Your task to perform on an android device: toggle javascript in the chrome app Image 0: 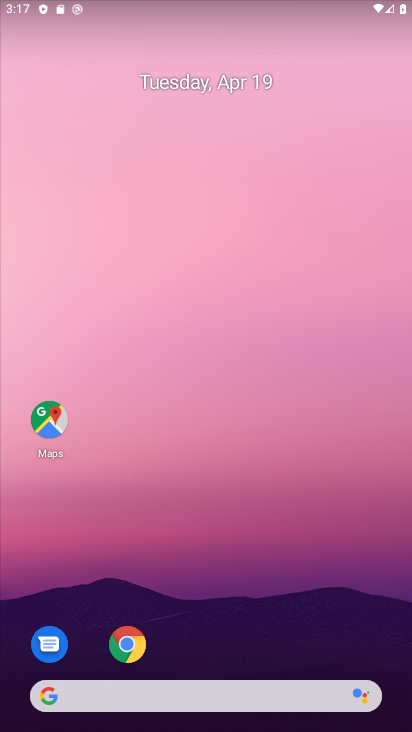
Step 0: click (128, 644)
Your task to perform on an android device: toggle javascript in the chrome app Image 1: 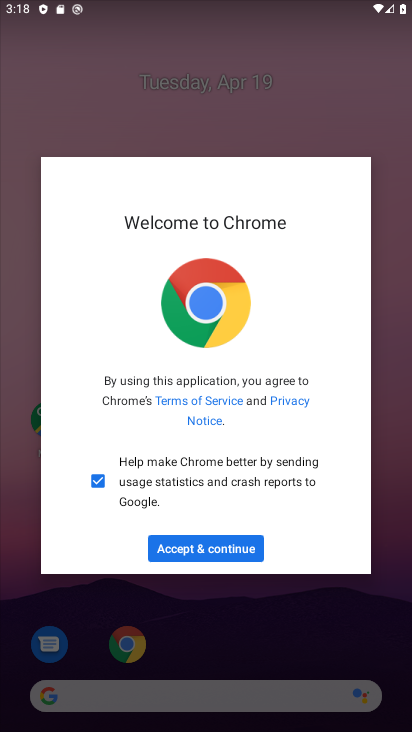
Step 1: click (207, 545)
Your task to perform on an android device: toggle javascript in the chrome app Image 2: 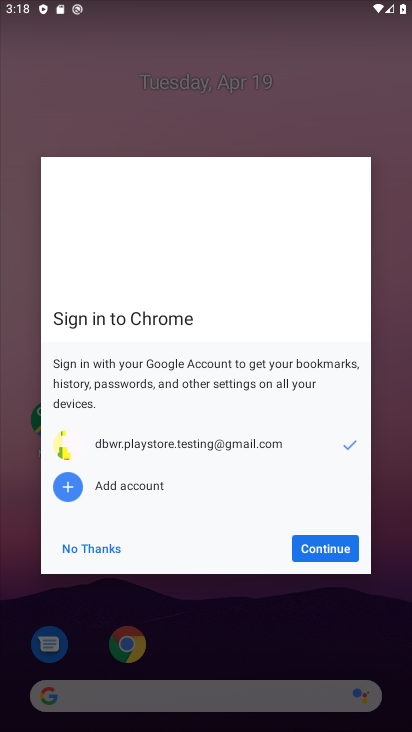
Step 2: click (308, 541)
Your task to perform on an android device: toggle javascript in the chrome app Image 3: 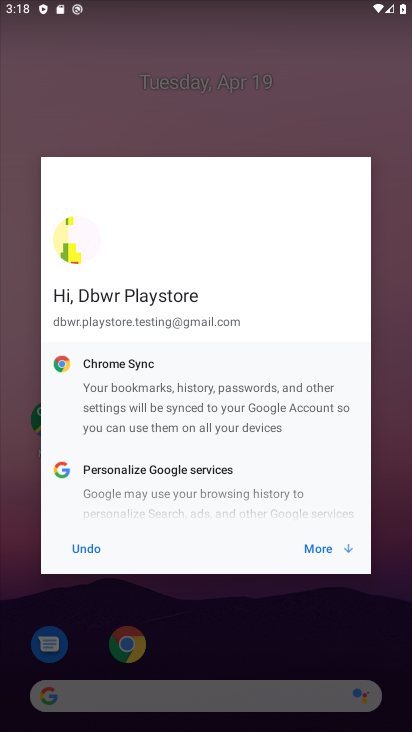
Step 3: click (315, 546)
Your task to perform on an android device: toggle javascript in the chrome app Image 4: 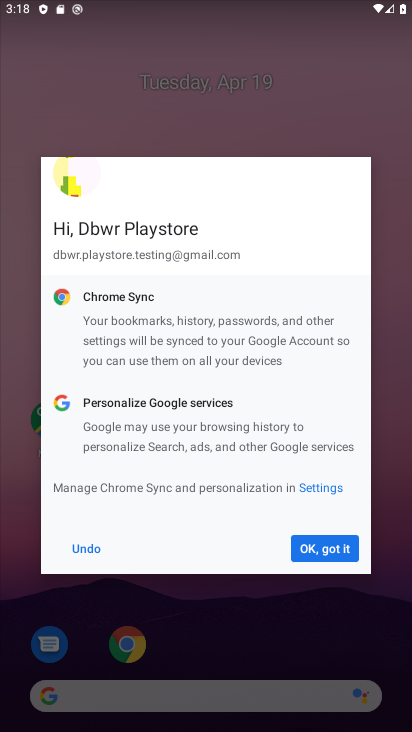
Step 4: click (315, 546)
Your task to perform on an android device: toggle javascript in the chrome app Image 5: 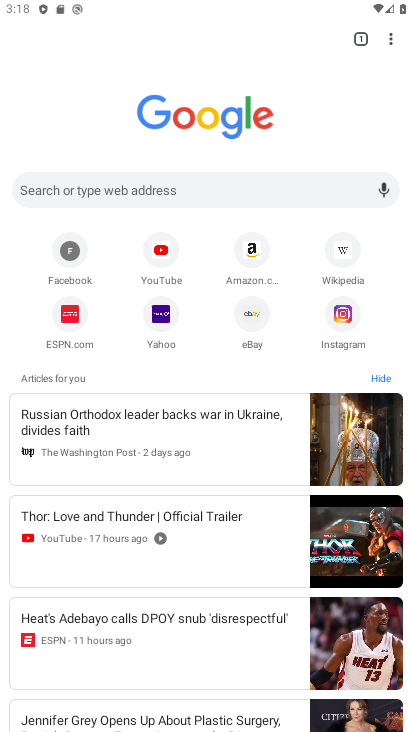
Step 5: click (388, 33)
Your task to perform on an android device: toggle javascript in the chrome app Image 6: 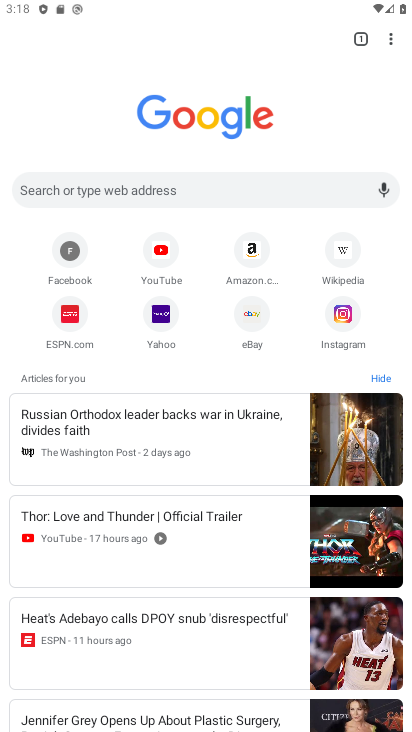
Step 6: click (386, 38)
Your task to perform on an android device: toggle javascript in the chrome app Image 7: 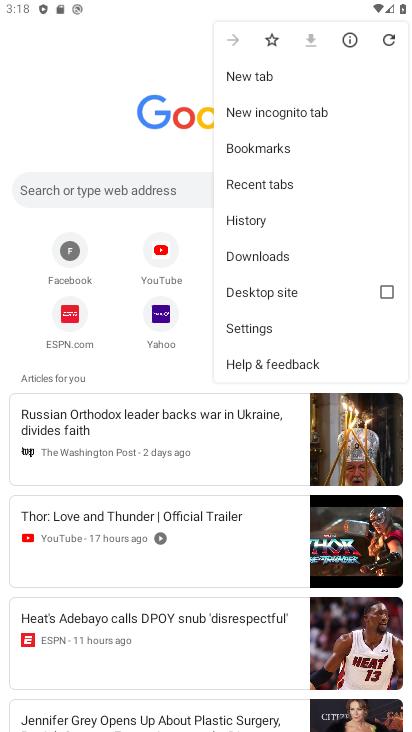
Step 7: click (237, 325)
Your task to perform on an android device: toggle javascript in the chrome app Image 8: 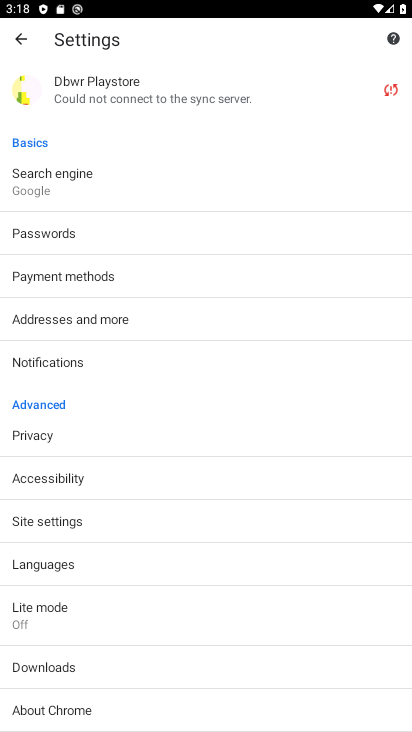
Step 8: click (54, 518)
Your task to perform on an android device: toggle javascript in the chrome app Image 9: 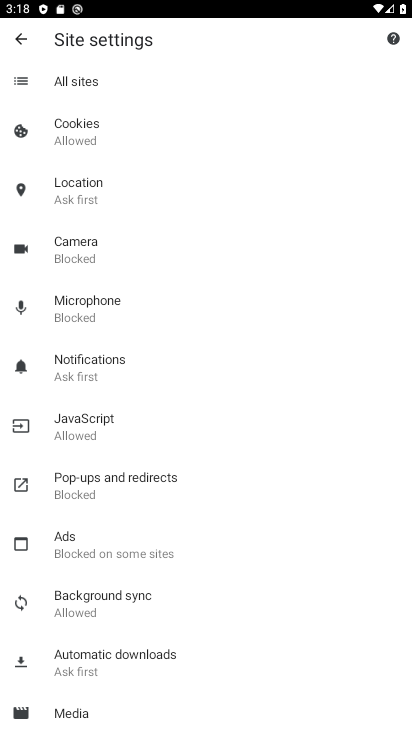
Step 9: click (90, 425)
Your task to perform on an android device: toggle javascript in the chrome app Image 10: 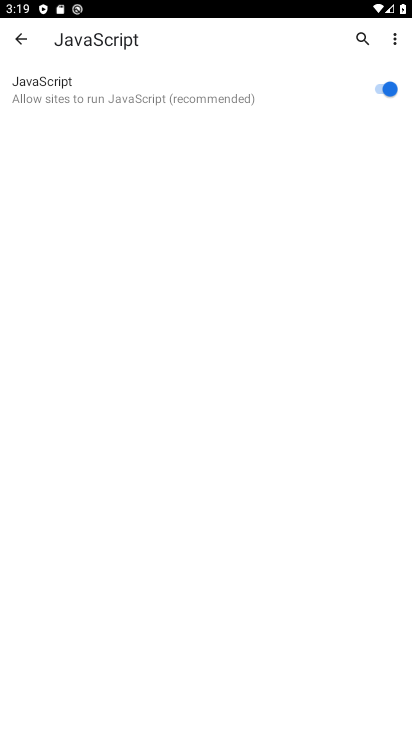
Step 10: click (382, 87)
Your task to perform on an android device: toggle javascript in the chrome app Image 11: 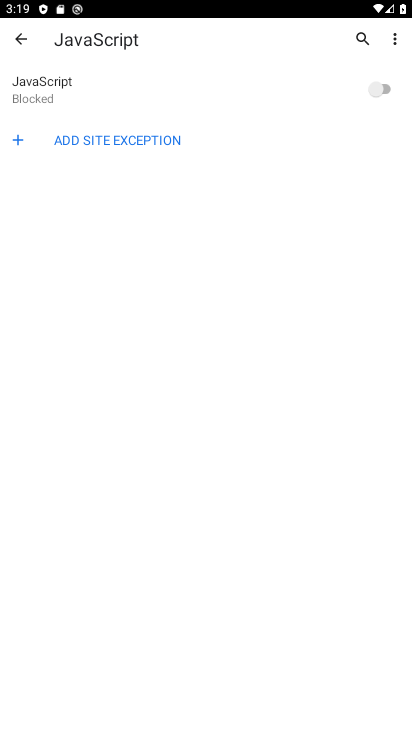
Step 11: task complete